Your task to perform on an android device: turn smart compose on in the gmail app Image 0: 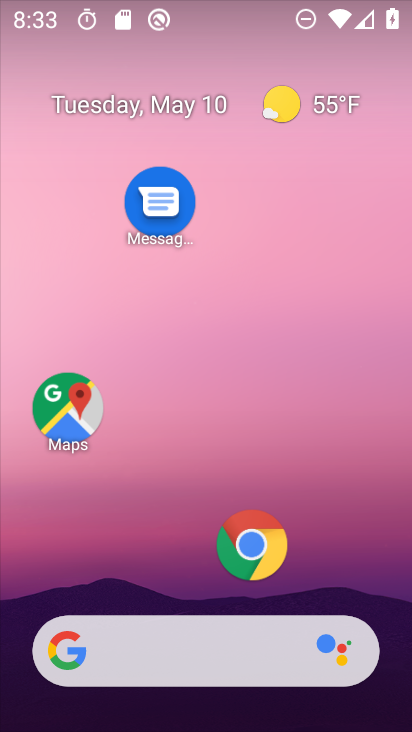
Step 0: drag from (175, 570) to (185, 90)
Your task to perform on an android device: turn smart compose on in the gmail app Image 1: 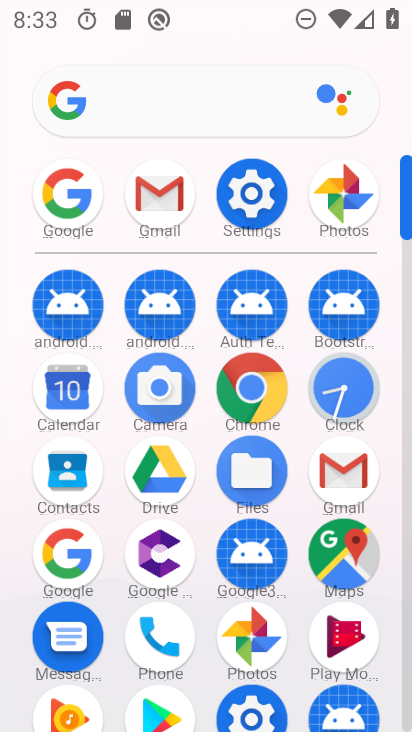
Step 1: click (155, 198)
Your task to perform on an android device: turn smart compose on in the gmail app Image 2: 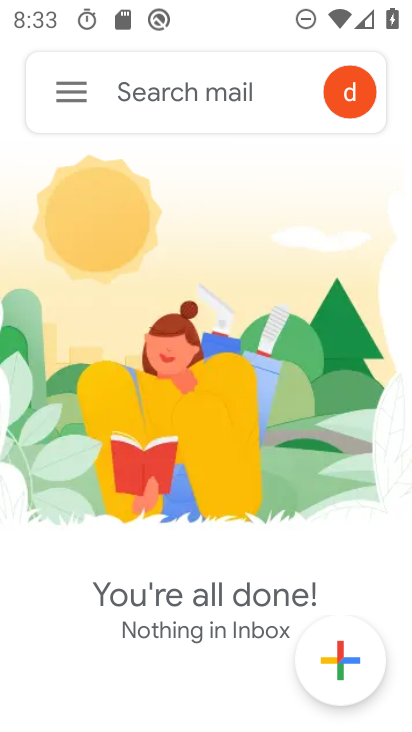
Step 2: click (82, 98)
Your task to perform on an android device: turn smart compose on in the gmail app Image 3: 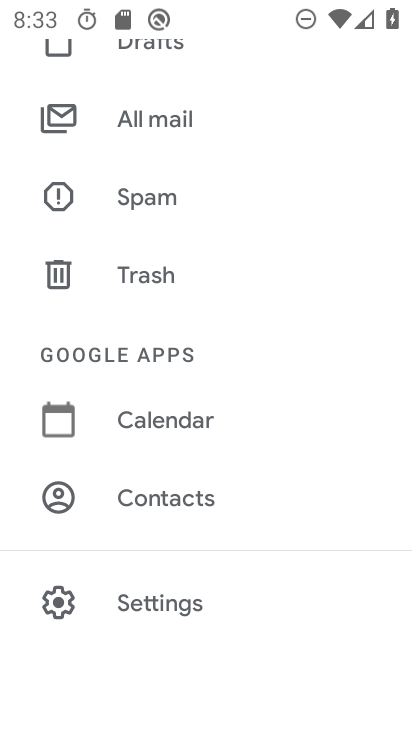
Step 3: click (169, 596)
Your task to perform on an android device: turn smart compose on in the gmail app Image 4: 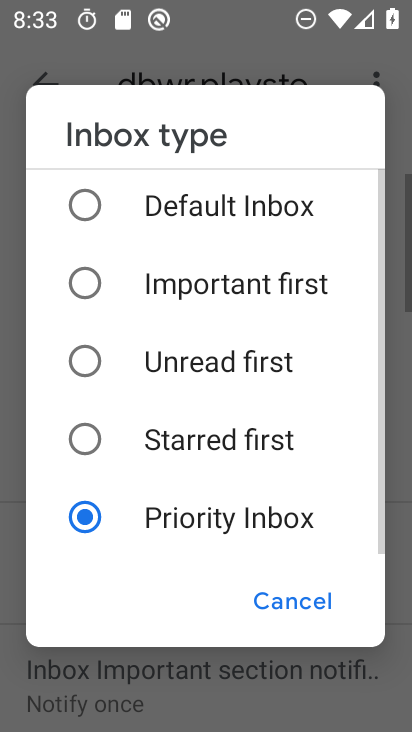
Step 4: click (283, 582)
Your task to perform on an android device: turn smart compose on in the gmail app Image 5: 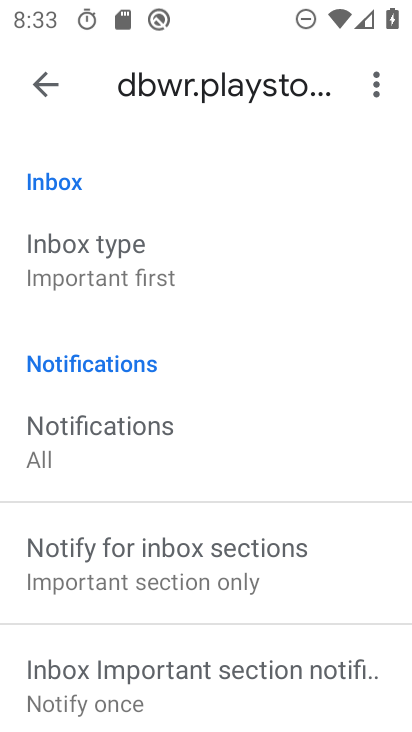
Step 5: task complete